Your task to perform on an android device: check data usage Image 0: 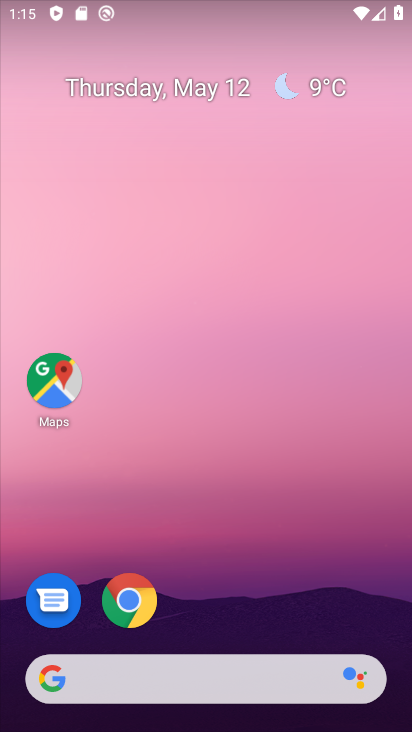
Step 0: drag from (270, 3) to (360, 571)
Your task to perform on an android device: check data usage Image 1: 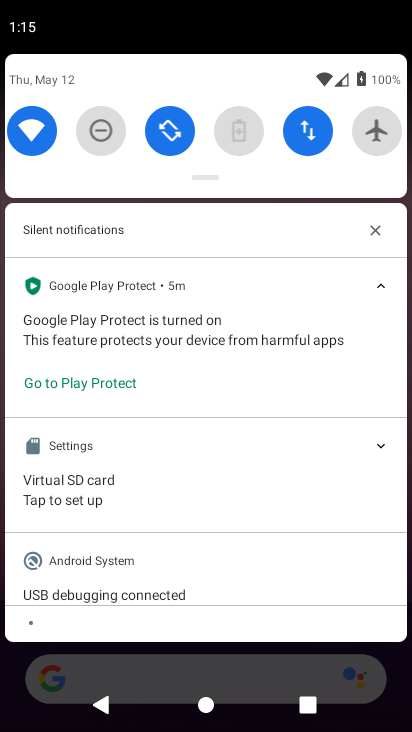
Step 1: click (307, 129)
Your task to perform on an android device: check data usage Image 2: 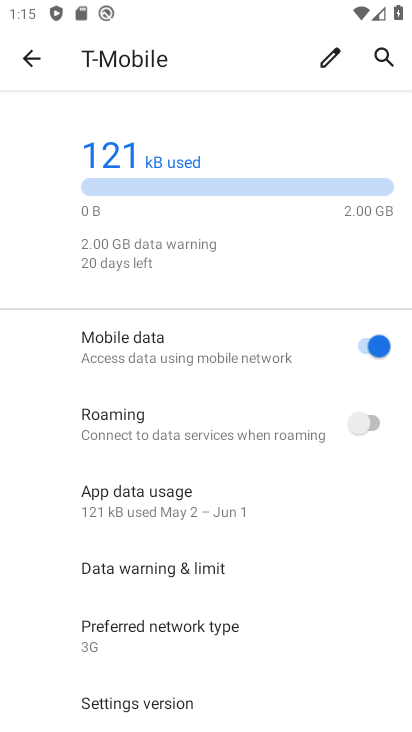
Step 2: task complete